Your task to perform on an android device: turn on priority inbox in the gmail app Image 0: 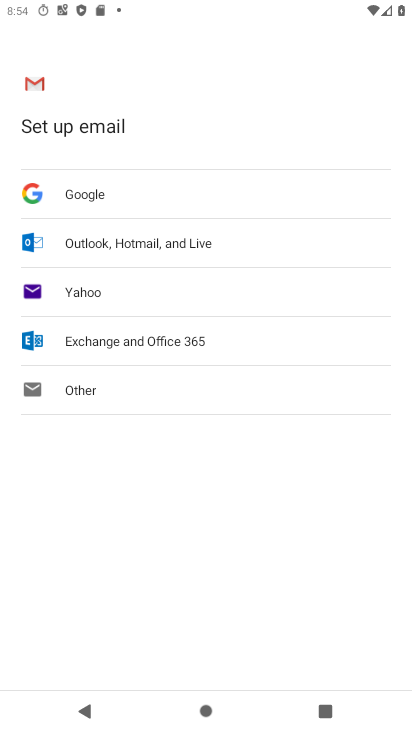
Step 0: press home button
Your task to perform on an android device: turn on priority inbox in the gmail app Image 1: 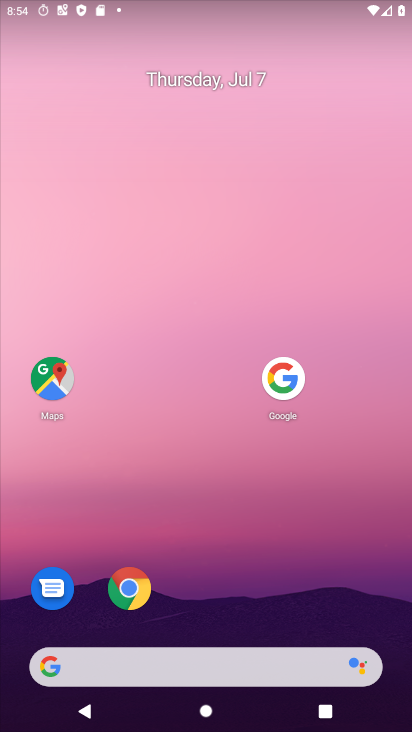
Step 1: drag from (183, 635) to (330, 109)
Your task to perform on an android device: turn on priority inbox in the gmail app Image 2: 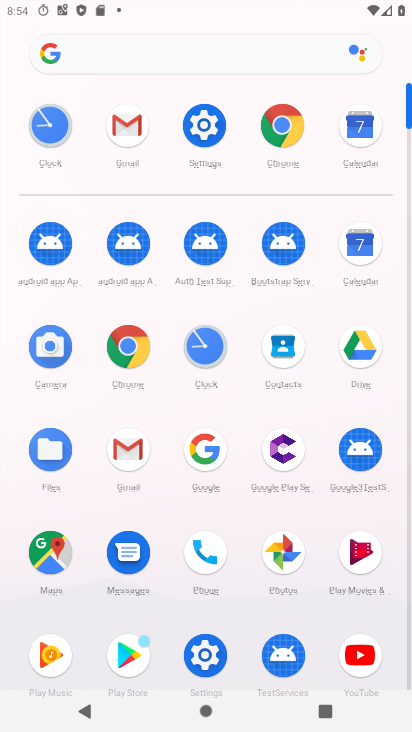
Step 2: click (126, 133)
Your task to perform on an android device: turn on priority inbox in the gmail app Image 3: 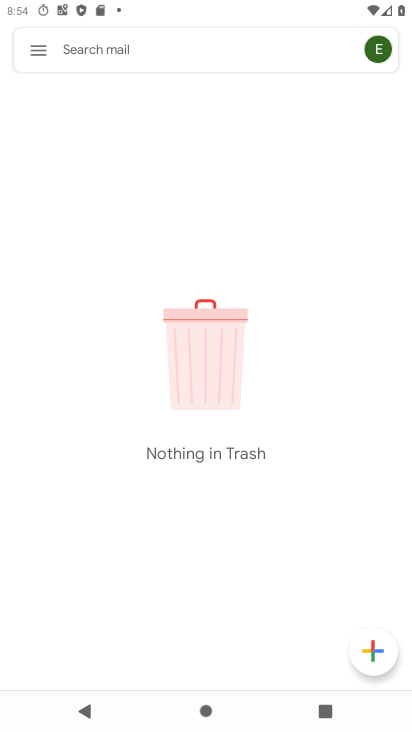
Step 3: click (35, 52)
Your task to perform on an android device: turn on priority inbox in the gmail app Image 4: 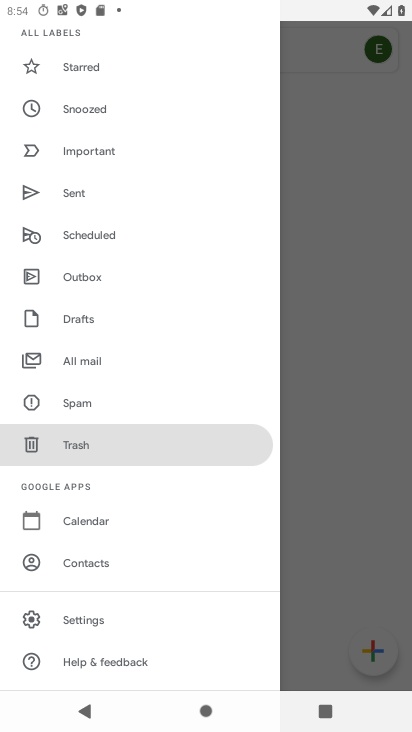
Step 4: click (92, 621)
Your task to perform on an android device: turn on priority inbox in the gmail app Image 5: 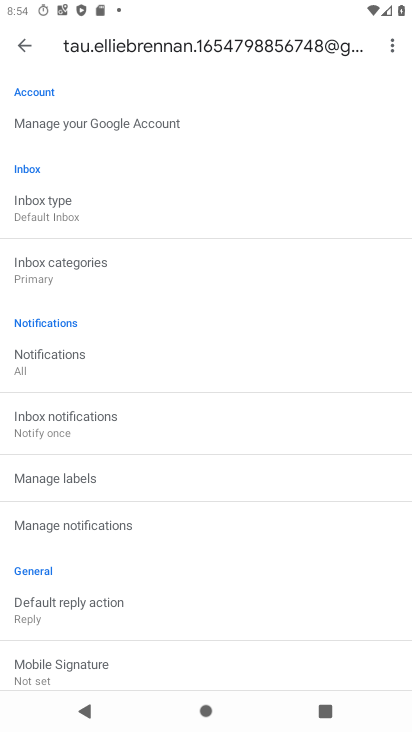
Step 5: click (78, 201)
Your task to perform on an android device: turn on priority inbox in the gmail app Image 6: 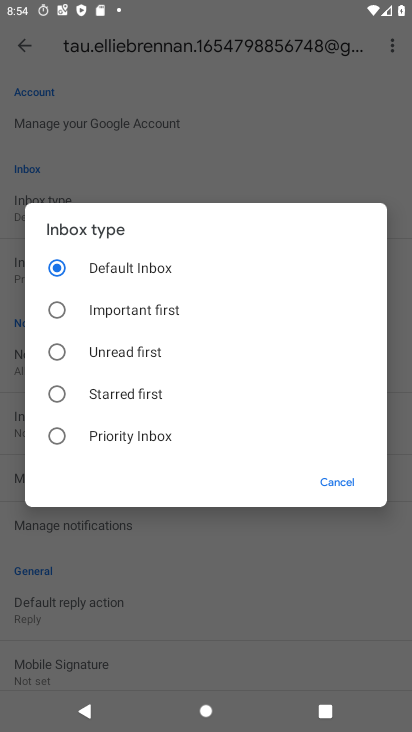
Step 6: click (58, 439)
Your task to perform on an android device: turn on priority inbox in the gmail app Image 7: 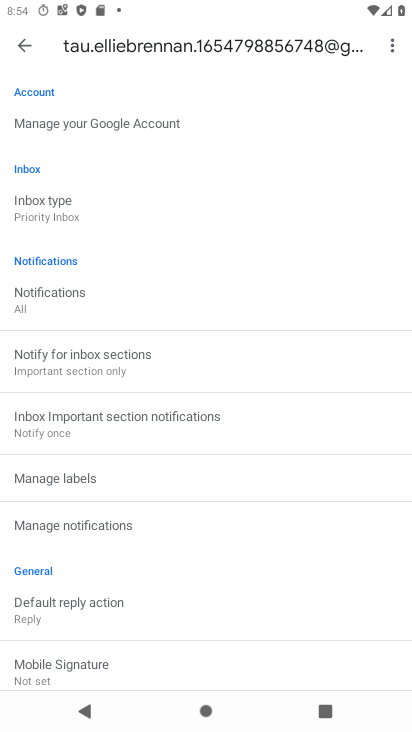
Step 7: task complete